Your task to perform on an android device: star an email in the gmail app Image 0: 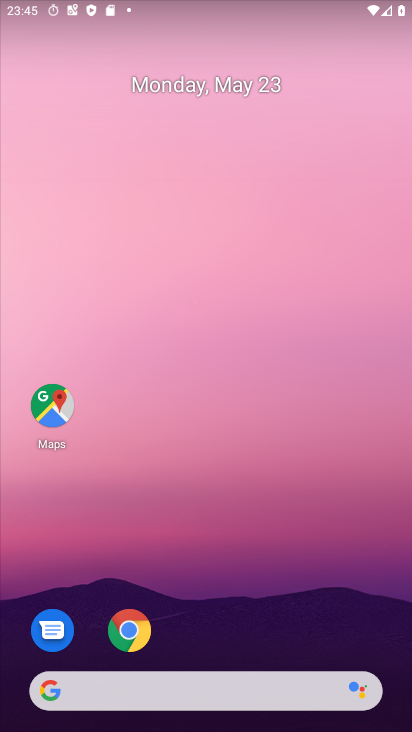
Step 0: drag from (335, 658) to (320, 0)
Your task to perform on an android device: star an email in the gmail app Image 1: 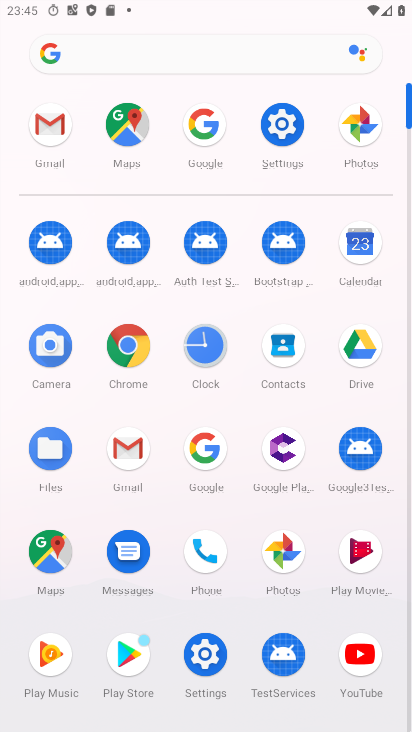
Step 1: click (49, 135)
Your task to perform on an android device: star an email in the gmail app Image 2: 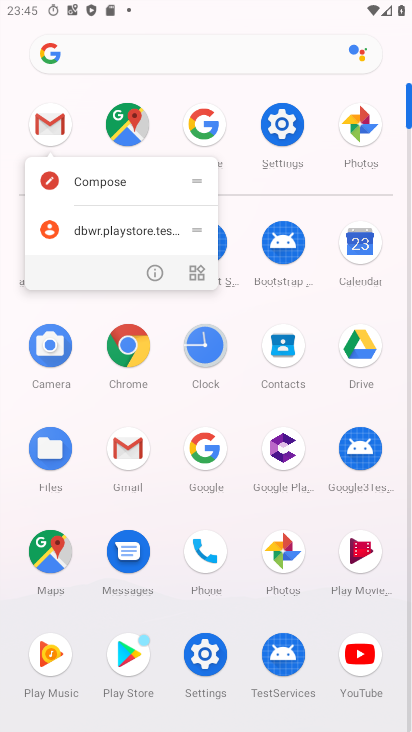
Step 2: click (46, 133)
Your task to perform on an android device: star an email in the gmail app Image 3: 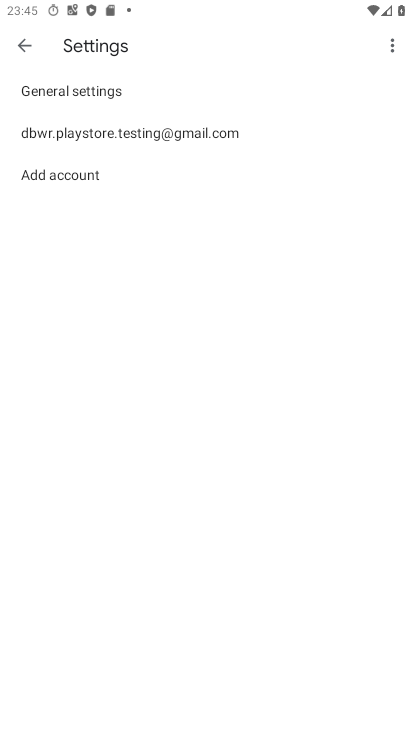
Step 3: click (19, 40)
Your task to perform on an android device: star an email in the gmail app Image 4: 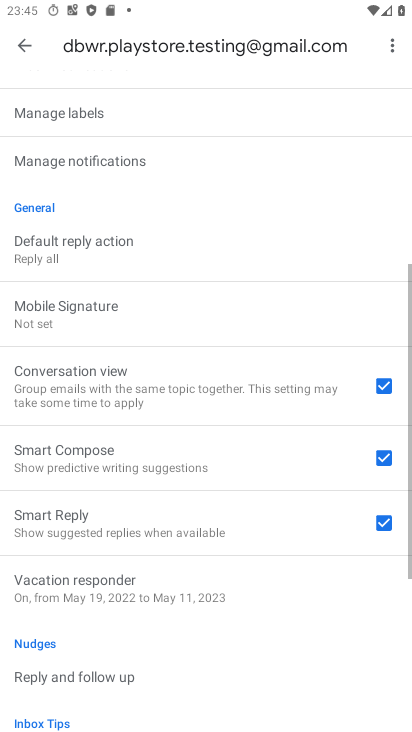
Step 4: click (19, 40)
Your task to perform on an android device: star an email in the gmail app Image 5: 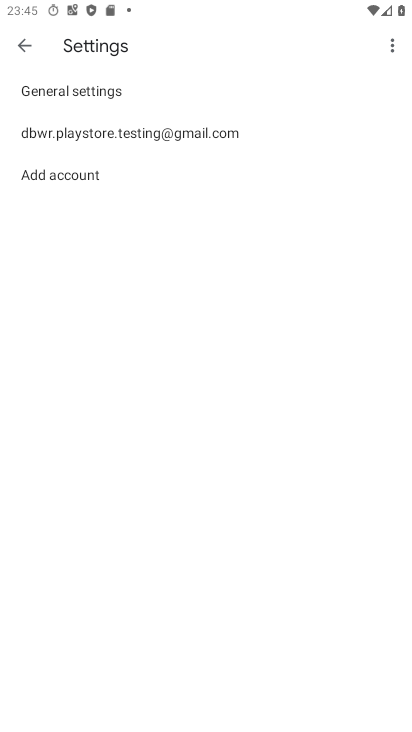
Step 5: click (19, 40)
Your task to perform on an android device: star an email in the gmail app Image 6: 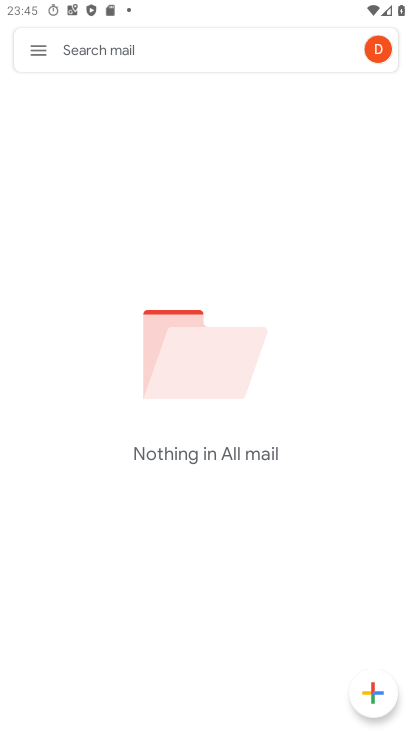
Step 6: task complete